Your task to perform on an android device: Show me popular games on the Play Store Image 0: 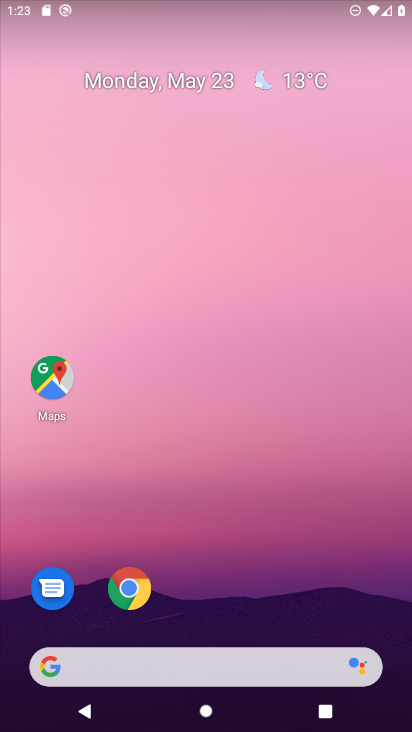
Step 0: drag from (238, 639) to (210, 303)
Your task to perform on an android device: Show me popular games on the Play Store Image 1: 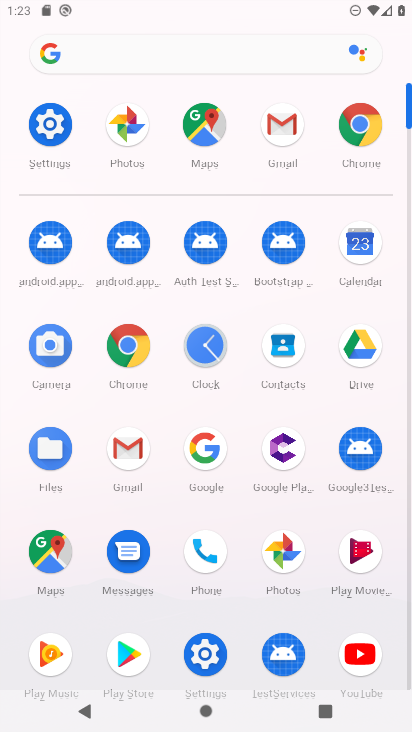
Step 1: click (122, 661)
Your task to perform on an android device: Show me popular games on the Play Store Image 2: 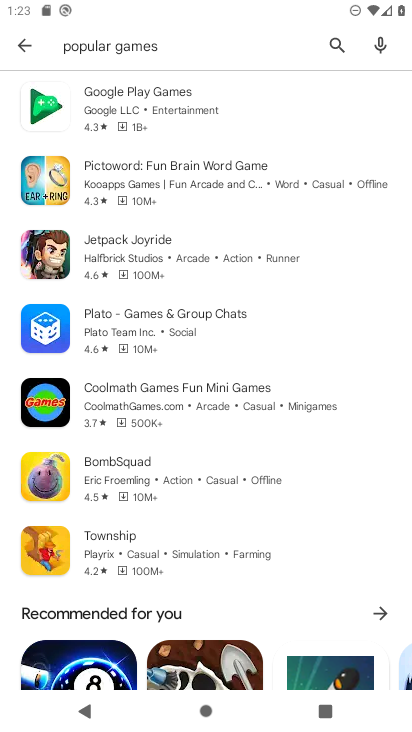
Step 2: task complete